Your task to perform on an android device: Search for flights from Sydney to Buenos aires Image 0: 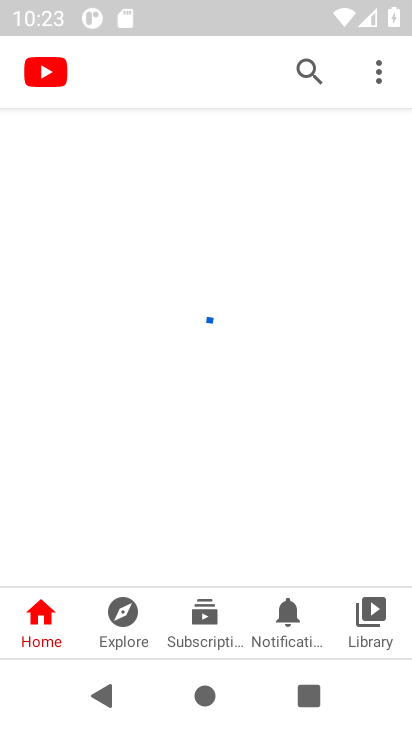
Step 0: click (252, 486)
Your task to perform on an android device: Search for flights from Sydney to Buenos aires Image 1: 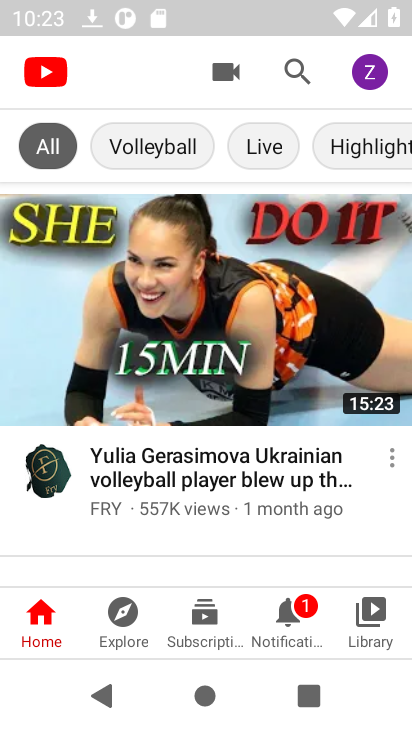
Step 1: press home button
Your task to perform on an android device: Search for flights from Sydney to Buenos aires Image 2: 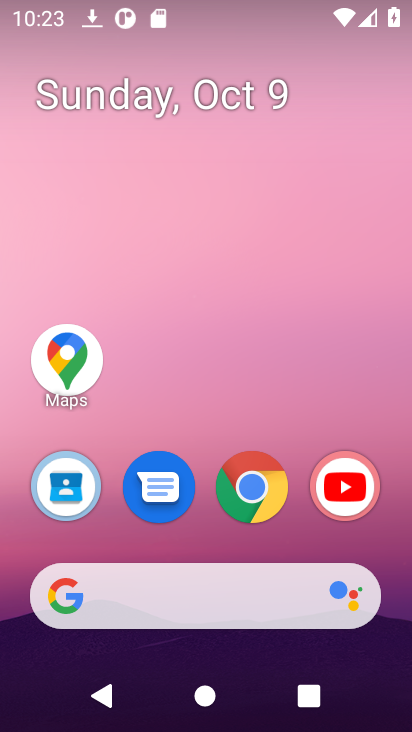
Step 2: click (266, 480)
Your task to perform on an android device: Search for flights from Sydney to Buenos aires Image 3: 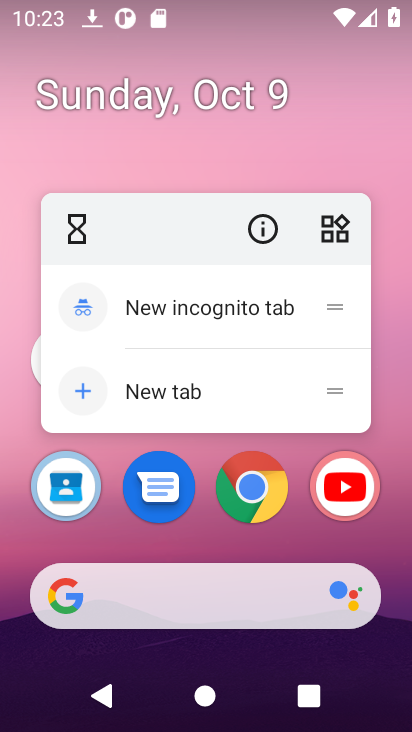
Step 3: click (269, 497)
Your task to perform on an android device: Search for flights from Sydney to Buenos aires Image 4: 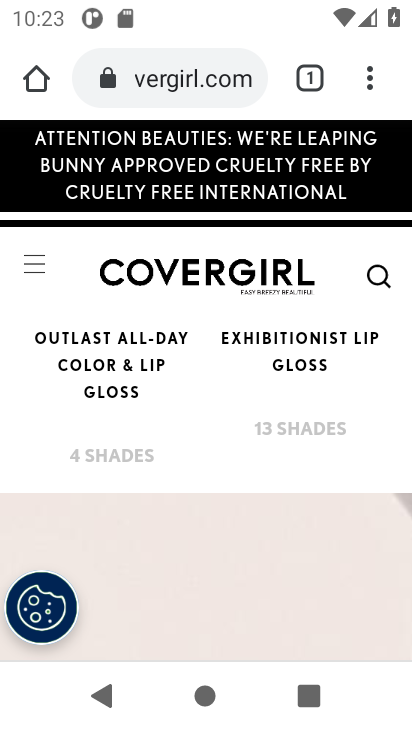
Step 4: click (222, 66)
Your task to perform on an android device: Search for flights from Sydney to Buenos aires Image 5: 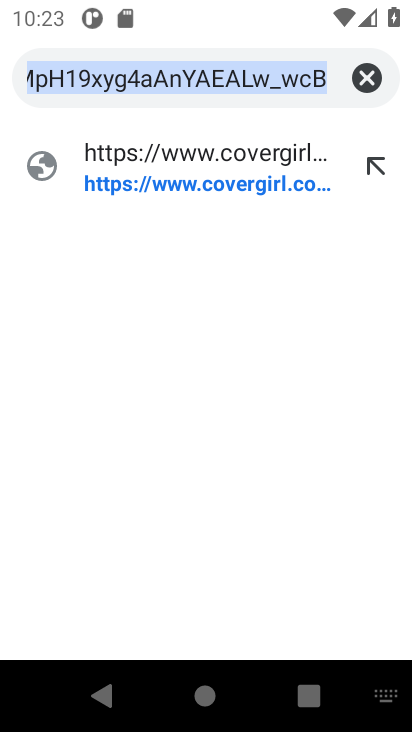
Step 5: type "flights from sydney to bueos aires"
Your task to perform on an android device: Search for flights from Sydney to Buenos aires Image 6: 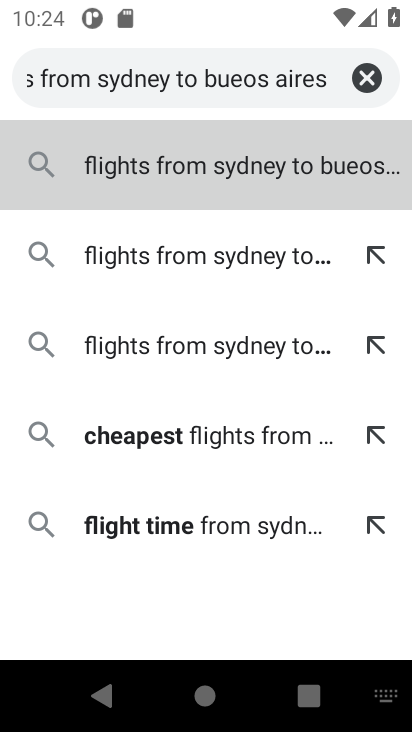
Step 6: press enter
Your task to perform on an android device: Search for flights from Sydney to Buenos aires Image 7: 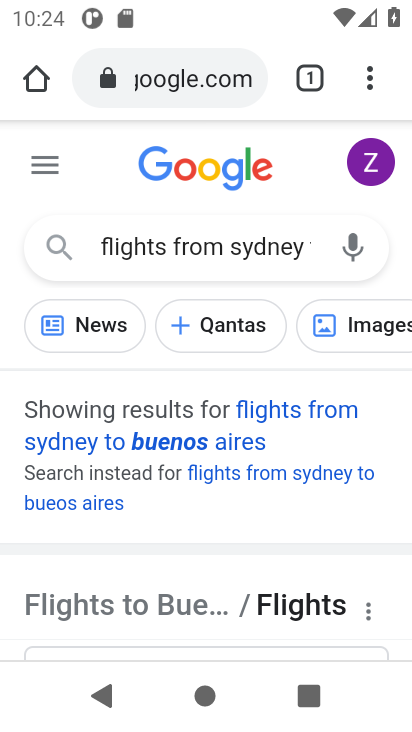
Step 7: drag from (205, 519) to (248, 181)
Your task to perform on an android device: Search for flights from Sydney to Buenos aires Image 8: 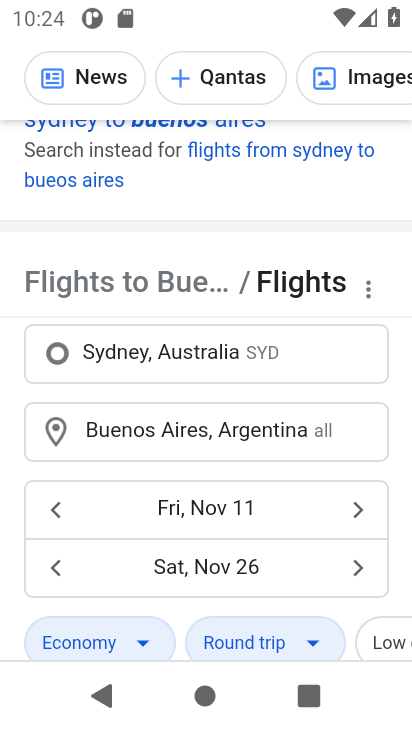
Step 8: drag from (277, 616) to (277, 264)
Your task to perform on an android device: Search for flights from Sydney to Buenos aires Image 9: 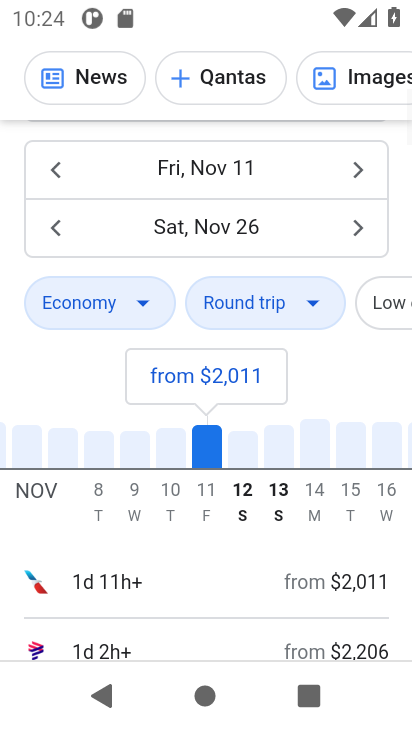
Step 9: drag from (261, 571) to (278, 243)
Your task to perform on an android device: Search for flights from Sydney to Buenos aires Image 10: 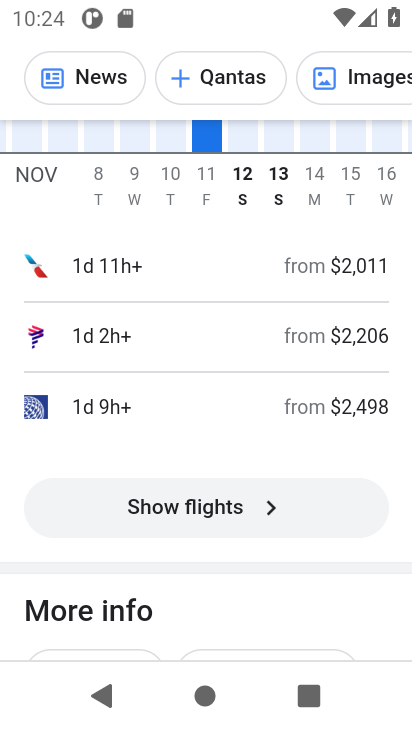
Step 10: click (254, 502)
Your task to perform on an android device: Search for flights from Sydney to Buenos aires Image 11: 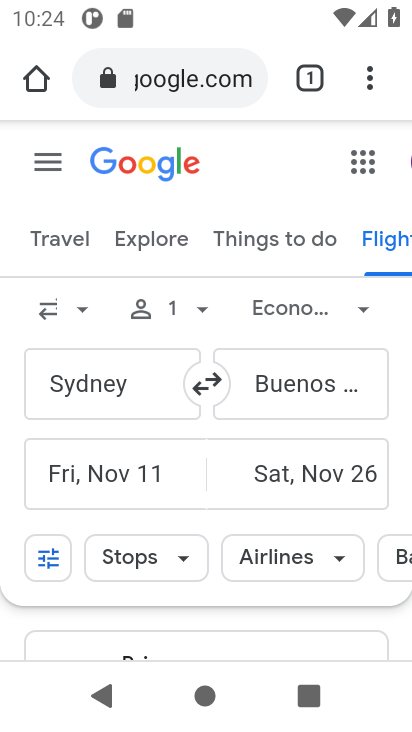
Step 11: task complete